Your task to perform on an android device: Open calendar and show me the fourth week of next month Image 0: 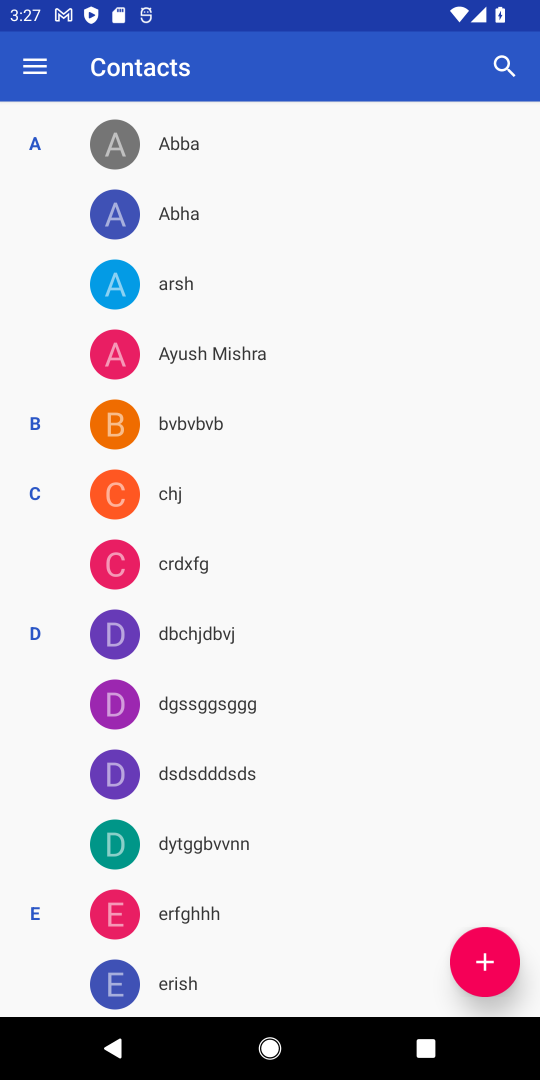
Step 0: press home button
Your task to perform on an android device: Open calendar and show me the fourth week of next month Image 1: 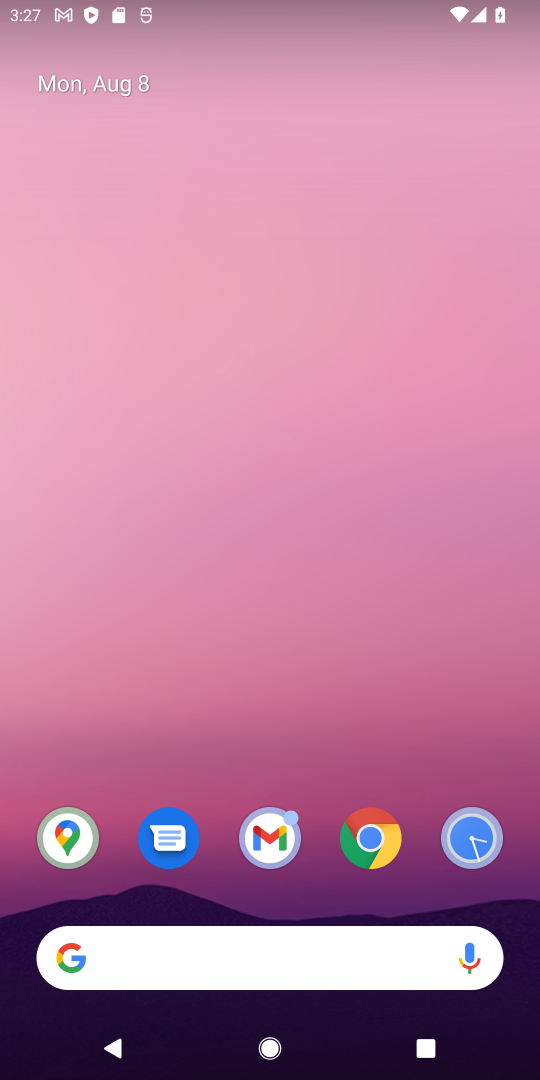
Step 1: drag from (241, 993) to (148, 96)
Your task to perform on an android device: Open calendar and show me the fourth week of next month Image 2: 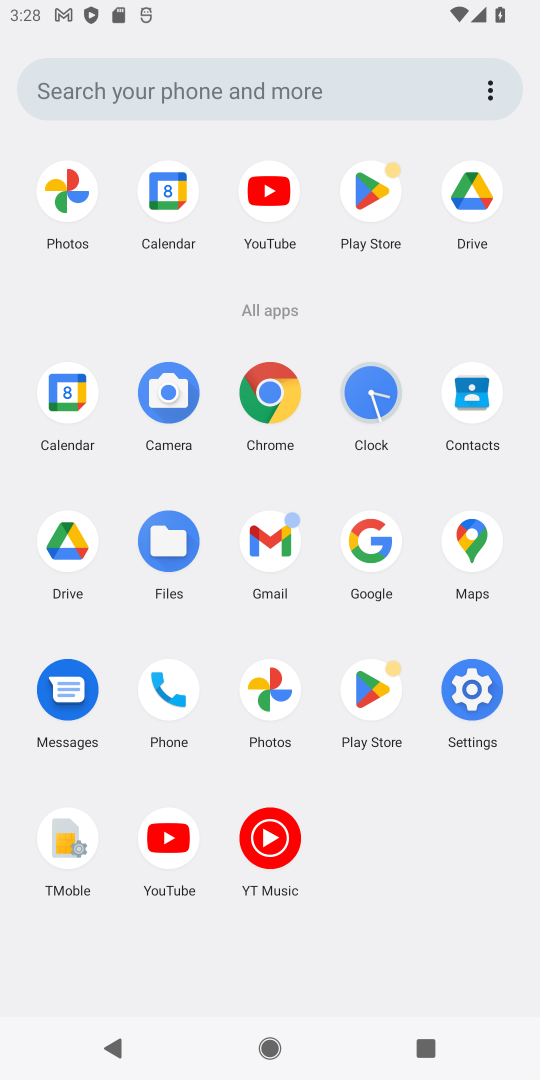
Step 2: click (168, 189)
Your task to perform on an android device: Open calendar and show me the fourth week of next month Image 3: 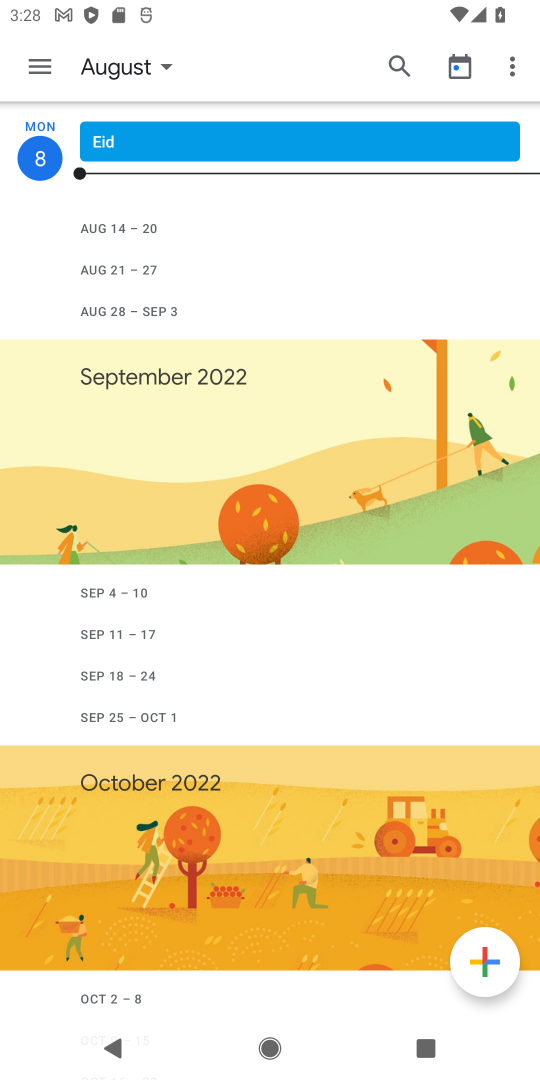
Step 3: click (163, 68)
Your task to perform on an android device: Open calendar and show me the fourth week of next month Image 4: 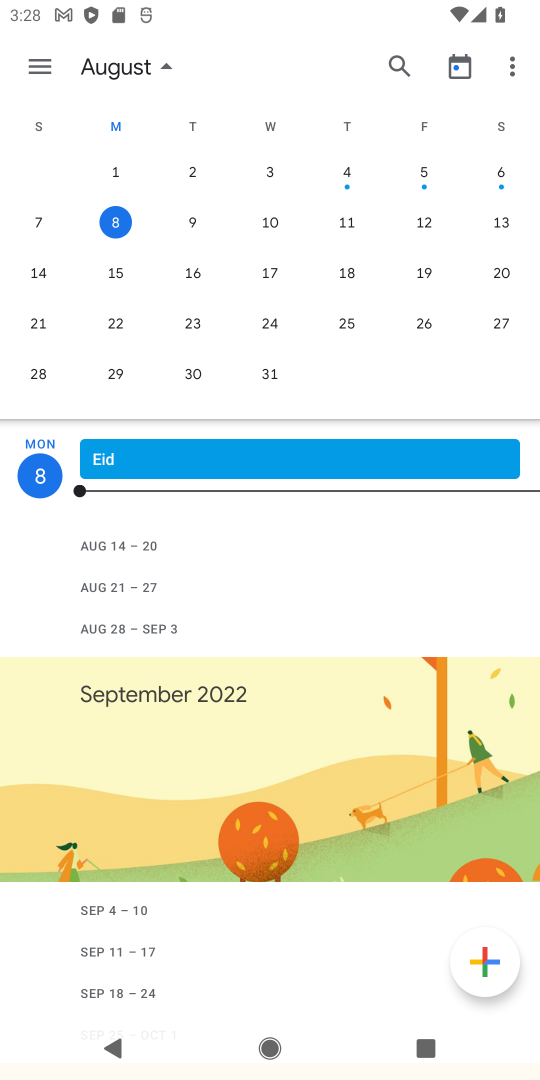
Step 4: drag from (477, 307) to (0, 369)
Your task to perform on an android device: Open calendar and show me the fourth week of next month Image 5: 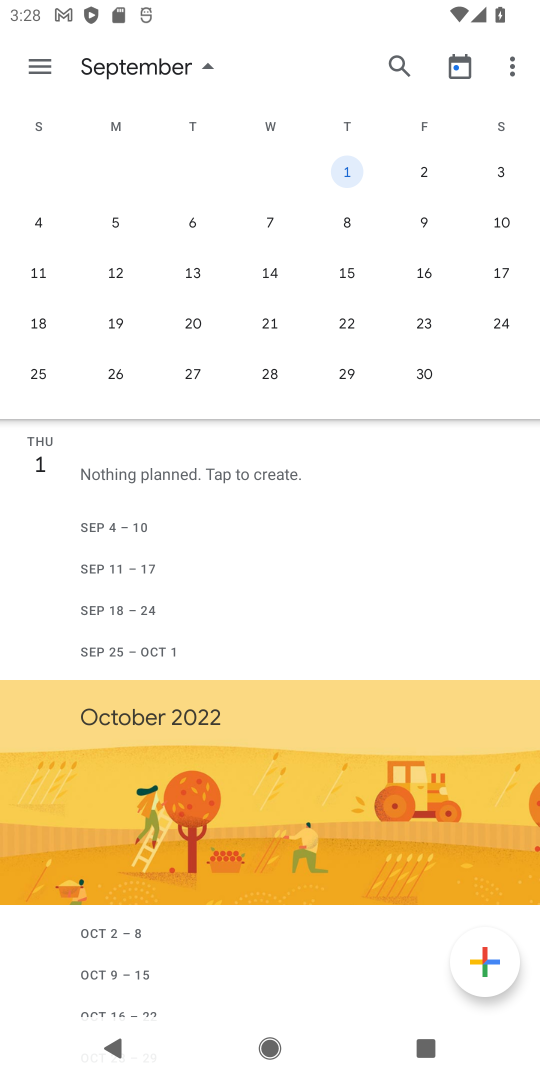
Step 5: click (116, 380)
Your task to perform on an android device: Open calendar and show me the fourth week of next month Image 6: 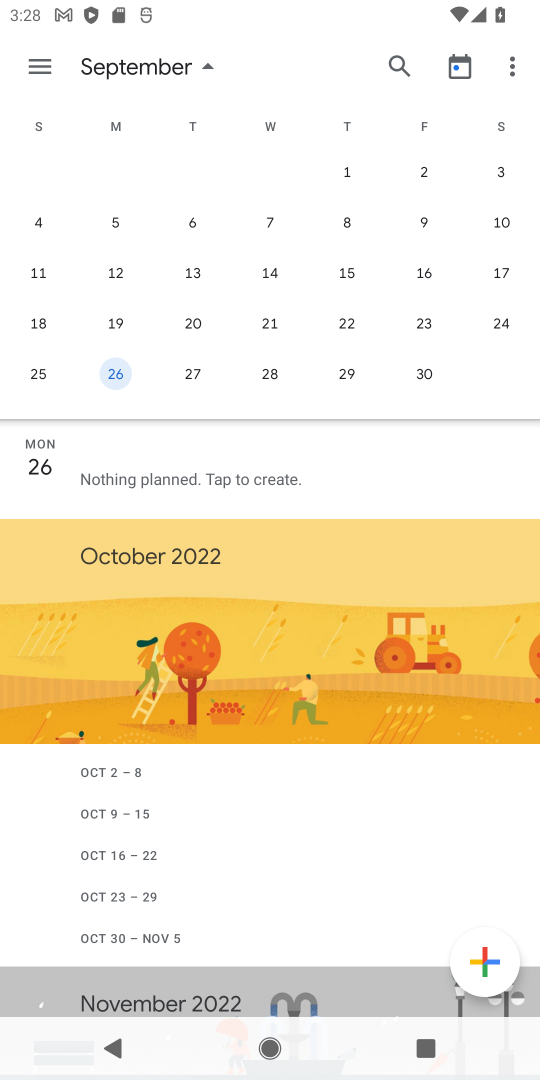
Step 6: click (50, 74)
Your task to perform on an android device: Open calendar and show me the fourth week of next month Image 7: 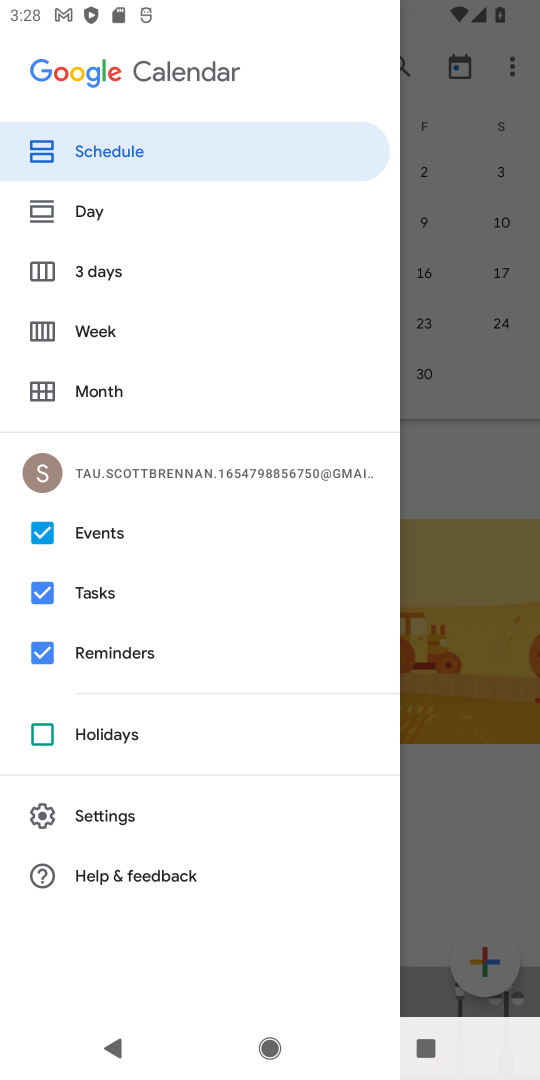
Step 7: click (100, 335)
Your task to perform on an android device: Open calendar and show me the fourth week of next month Image 8: 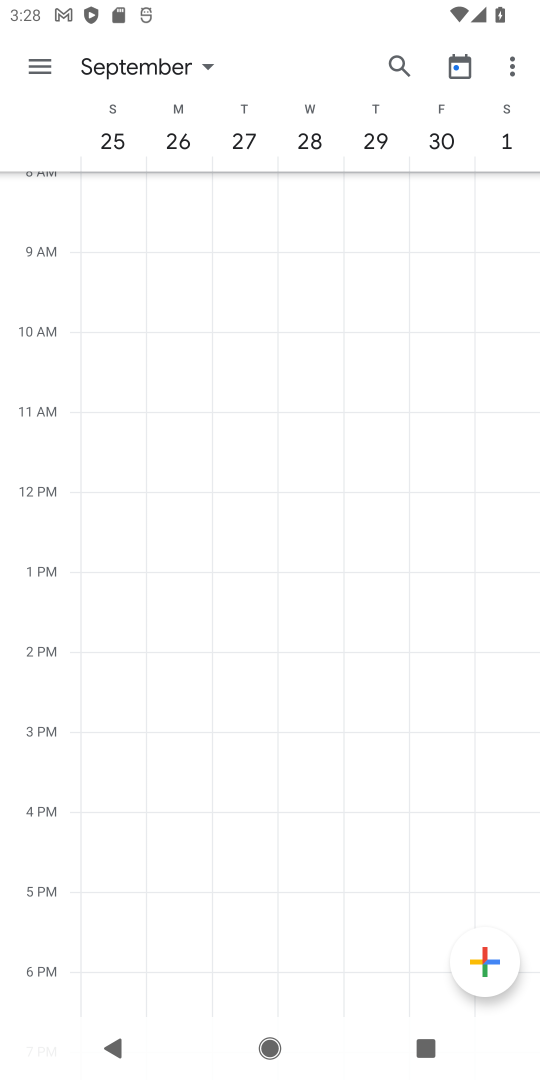
Step 8: task complete